Your task to perform on an android device: toggle javascript in the chrome app Image 0: 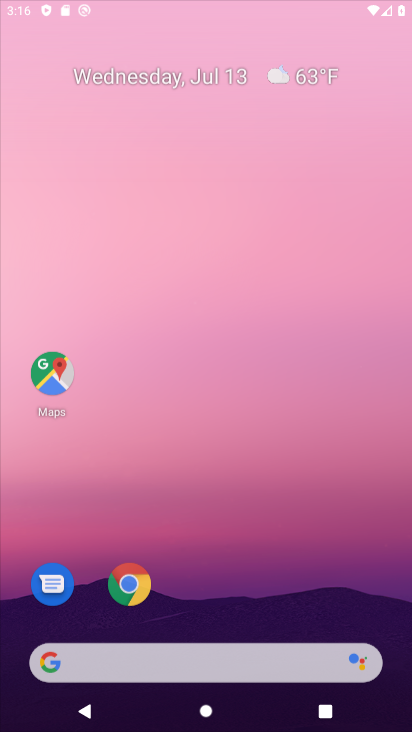
Step 0: click (321, 0)
Your task to perform on an android device: toggle javascript in the chrome app Image 1: 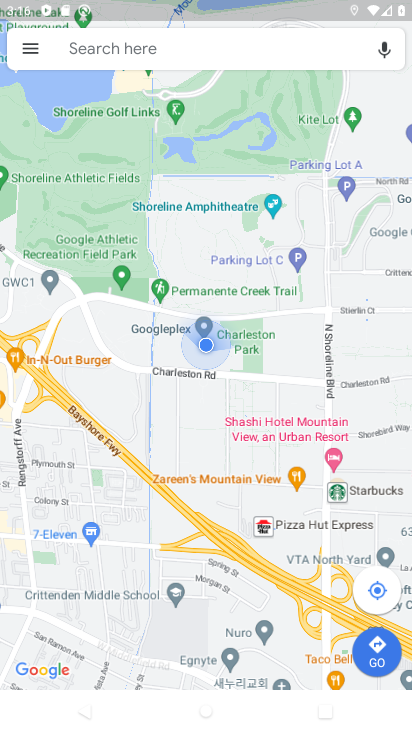
Step 1: press home button
Your task to perform on an android device: toggle javascript in the chrome app Image 2: 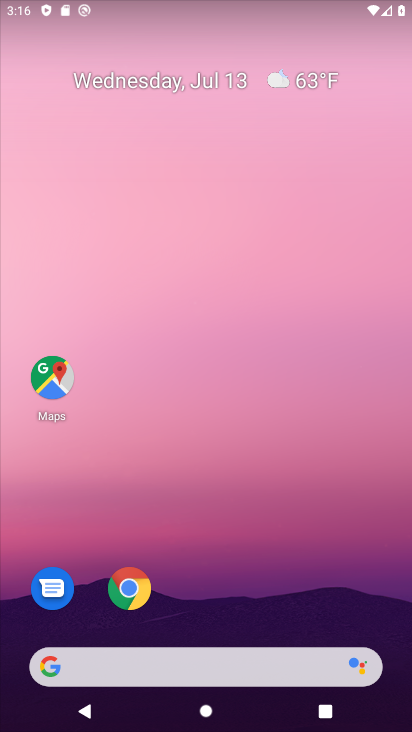
Step 2: drag from (288, 511) to (264, 54)
Your task to perform on an android device: toggle javascript in the chrome app Image 3: 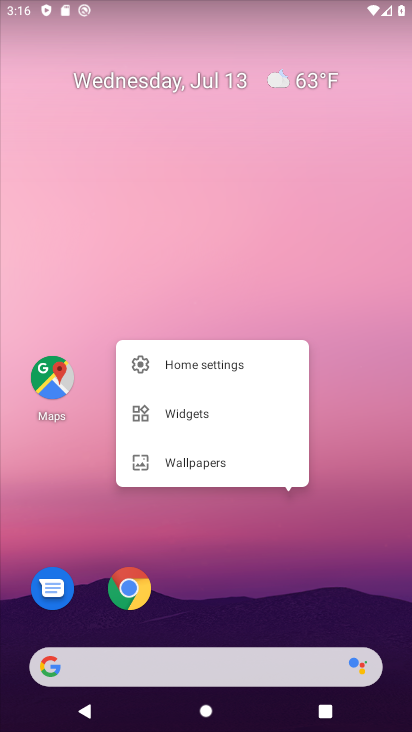
Step 3: click (350, 439)
Your task to perform on an android device: toggle javascript in the chrome app Image 4: 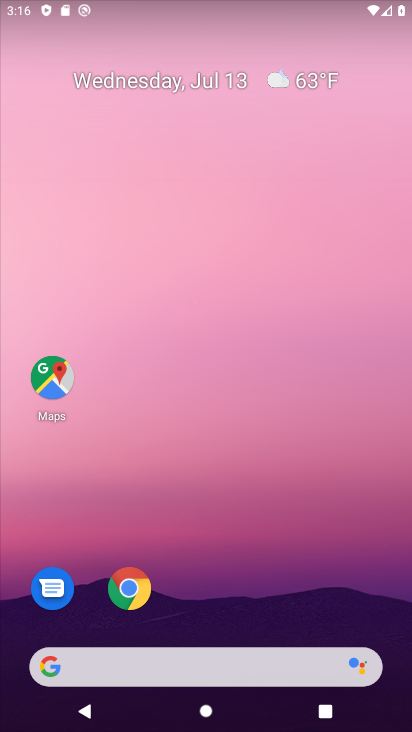
Step 4: drag from (243, 581) to (148, 30)
Your task to perform on an android device: toggle javascript in the chrome app Image 5: 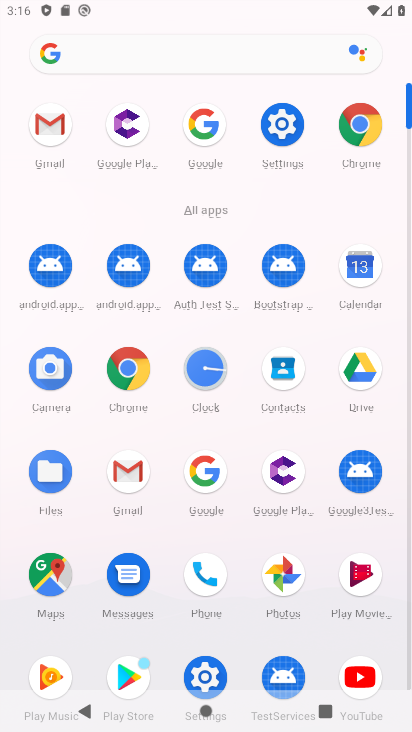
Step 5: click (336, 99)
Your task to perform on an android device: toggle javascript in the chrome app Image 6: 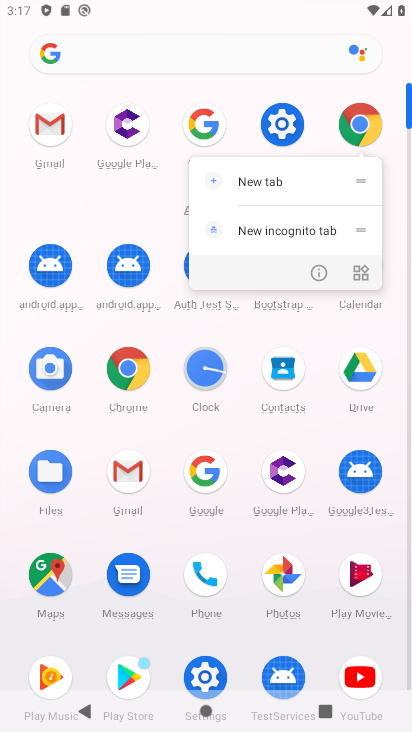
Step 6: click (349, 118)
Your task to perform on an android device: toggle javascript in the chrome app Image 7: 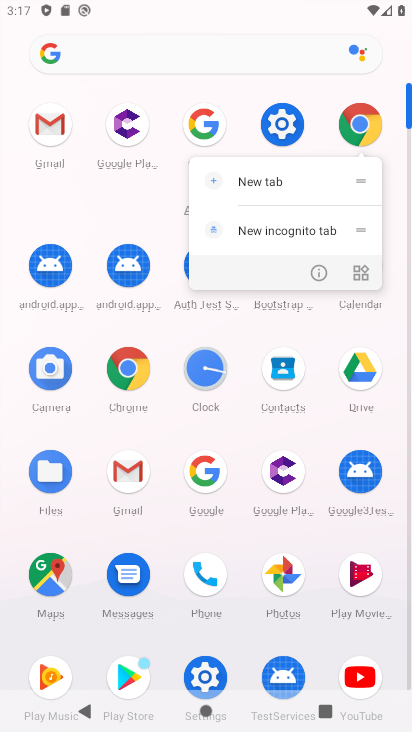
Step 7: click (349, 117)
Your task to perform on an android device: toggle javascript in the chrome app Image 8: 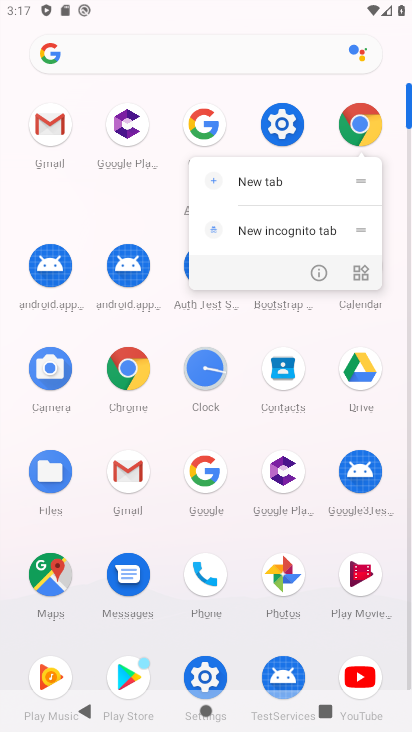
Step 8: click (351, 124)
Your task to perform on an android device: toggle javascript in the chrome app Image 9: 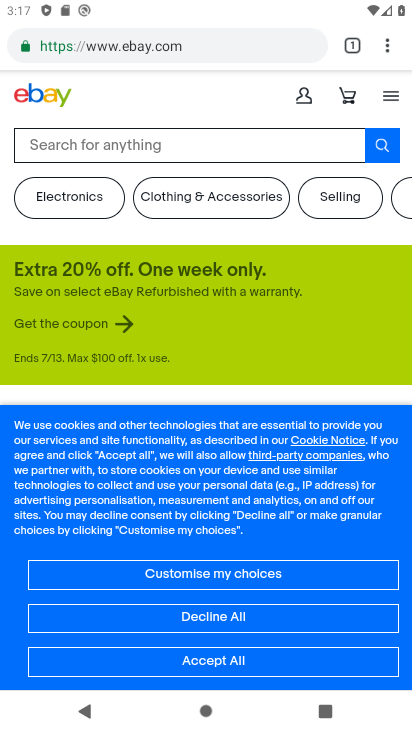
Step 9: drag from (387, 55) to (236, 543)
Your task to perform on an android device: toggle javascript in the chrome app Image 10: 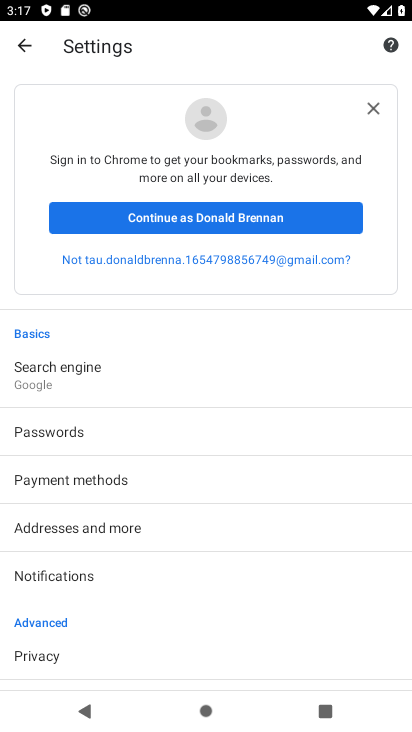
Step 10: drag from (166, 577) to (144, 249)
Your task to perform on an android device: toggle javascript in the chrome app Image 11: 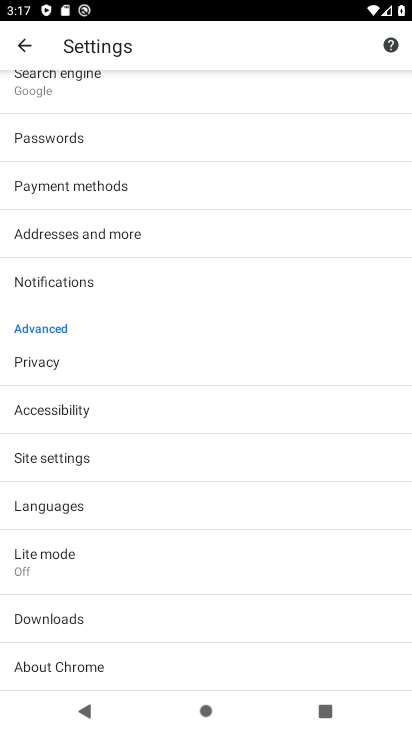
Step 11: click (103, 461)
Your task to perform on an android device: toggle javascript in the chrome app Image 12: 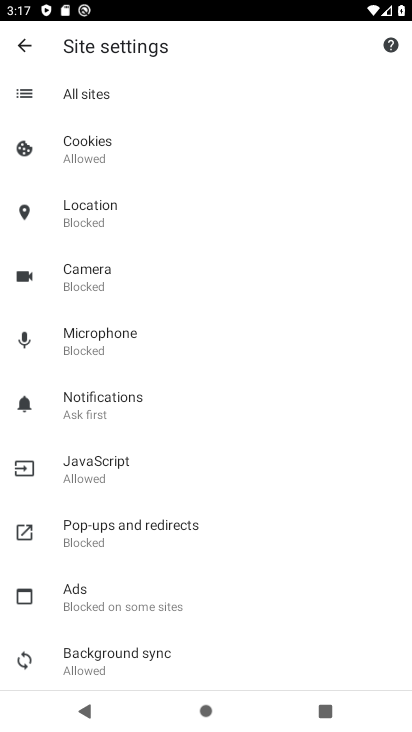
Step 12: click (103, 461)
Your task to perform on an android device: toggle javascript in the chrome app Image 13: 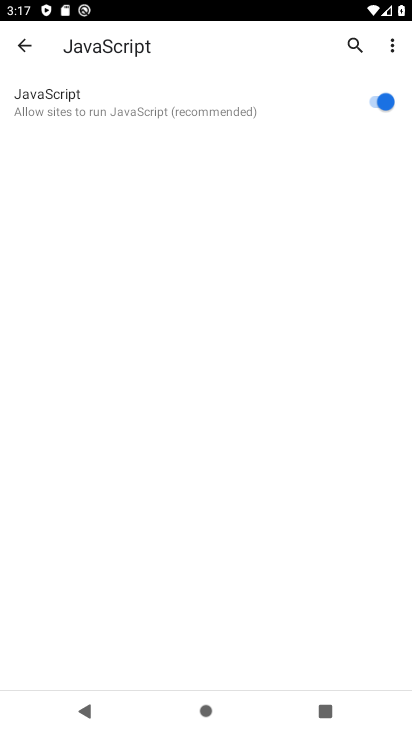
Step 13: click (384, 105)
Your task to perform on an android device: toggle javascript in the chrome app Image 14: 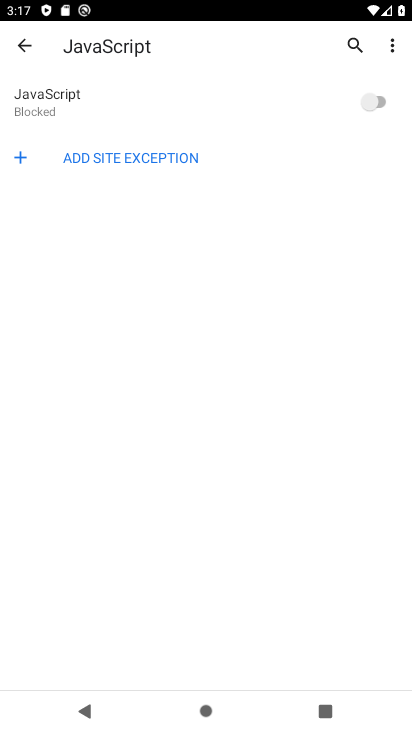
Step 14: task complete